Your task to perform on an android device: open app "Roku - Official Remote Control" (install if not already installed), go to login, and select forgot password Image 0: 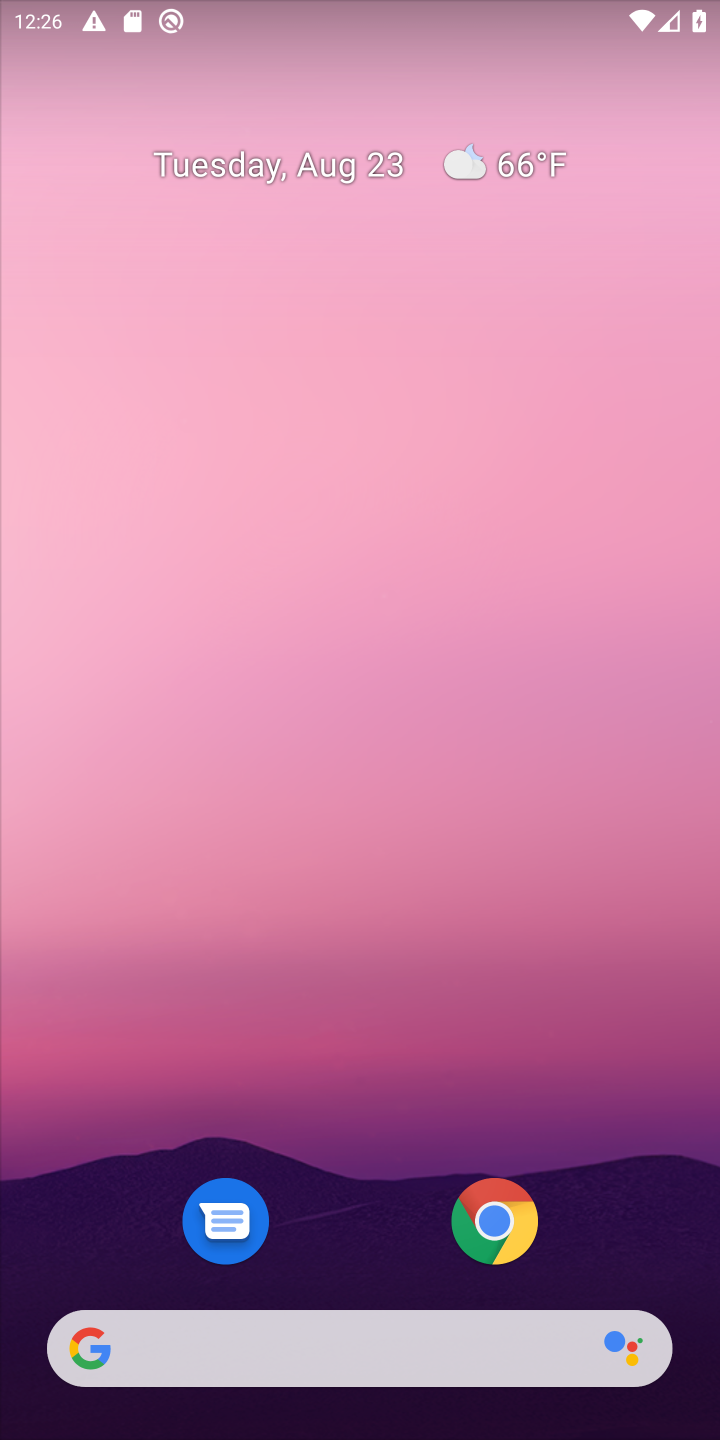
Step 0: drag from (384, 940) to (493, 214)
Your task to perform on an android device: open app "Roku - Official Remote Control" (install if not already installed), go to login, and select forgot password Image 1: 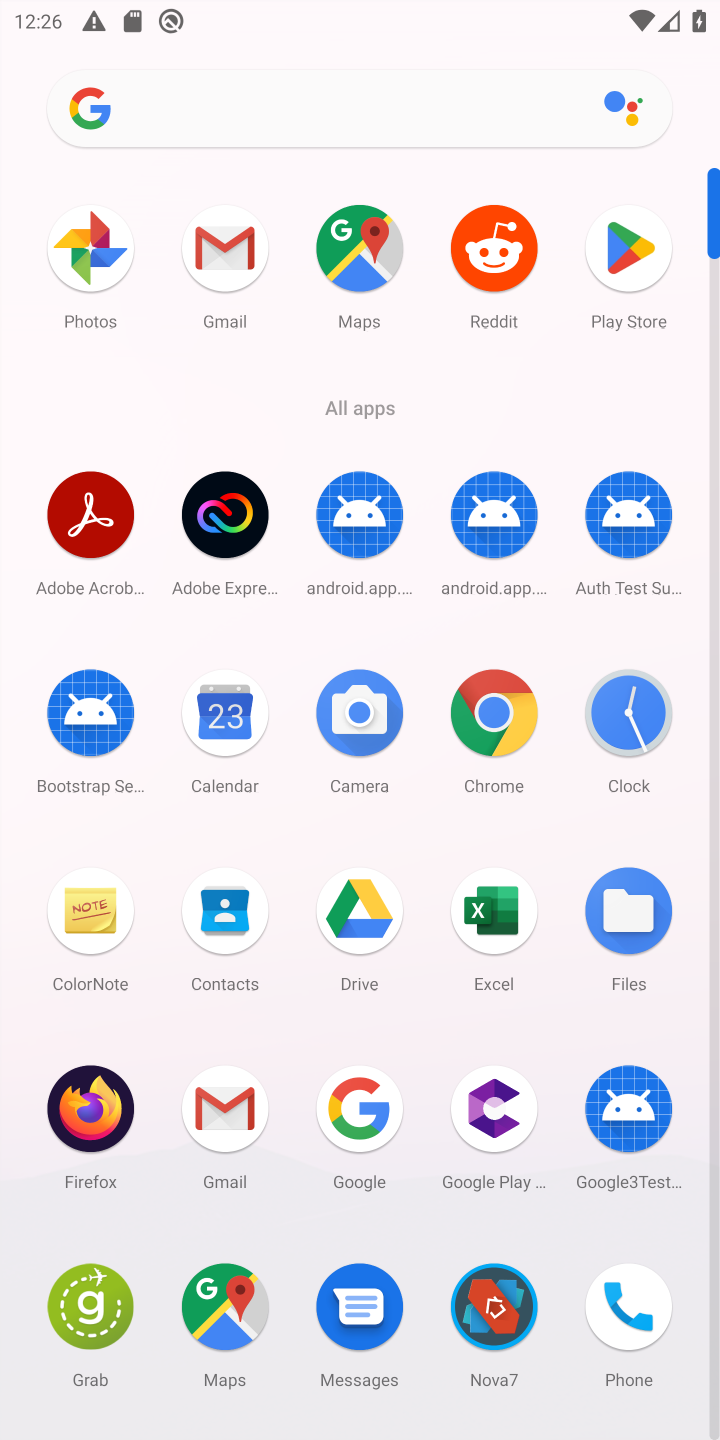
Step 1: click (618, 261)
Your task to perform on an android device: open app "Roku - Official Remote Control" (install if not already installed), go to login, and select forgot password Image 2: 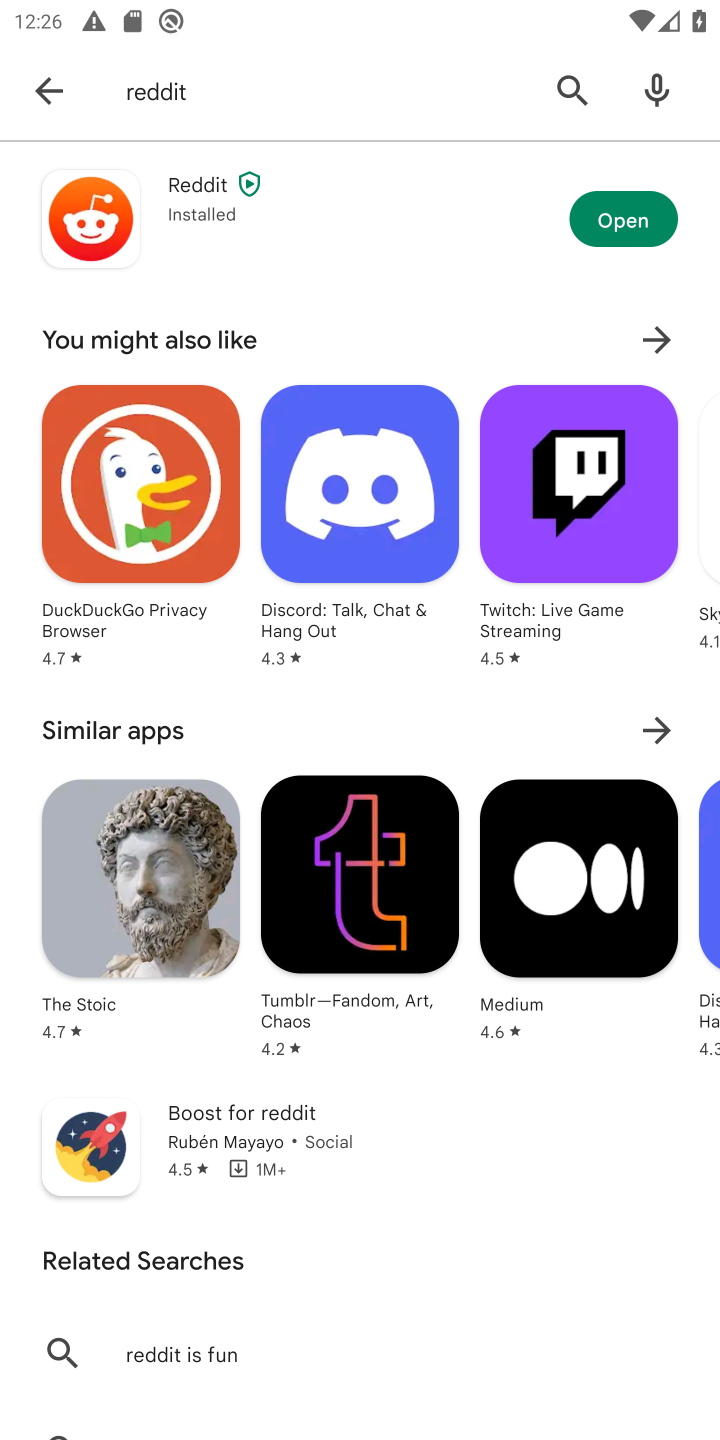
Step 2: click (568, 82)
Your task to perform on an android device: open app "Roku - Official Remote Control" (install if not already installed), go to login, and select forgot password Image 3: 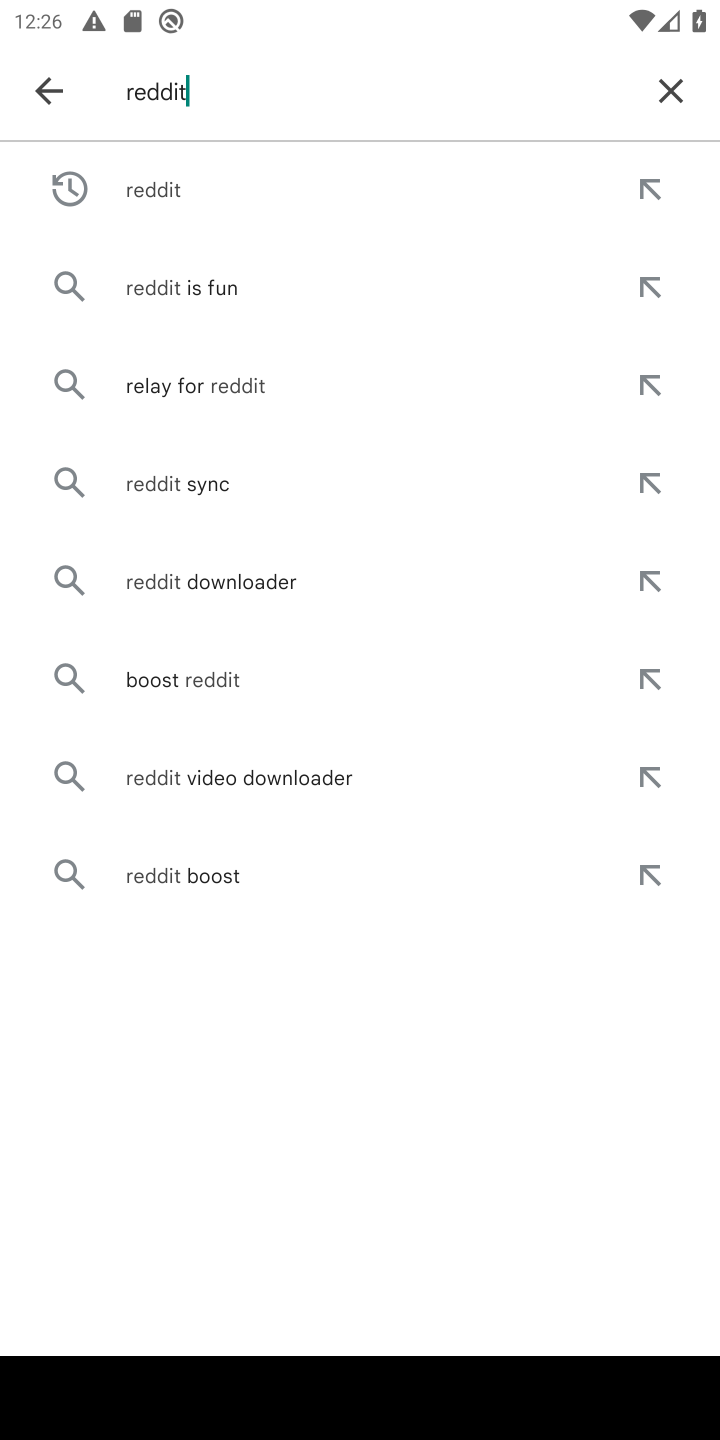
Step 3: click (677, 99)
Your task to perform on an android device: open app "Roku - Official Remote Control" (install if not already installed), go to login, and select forgot password Image 4: 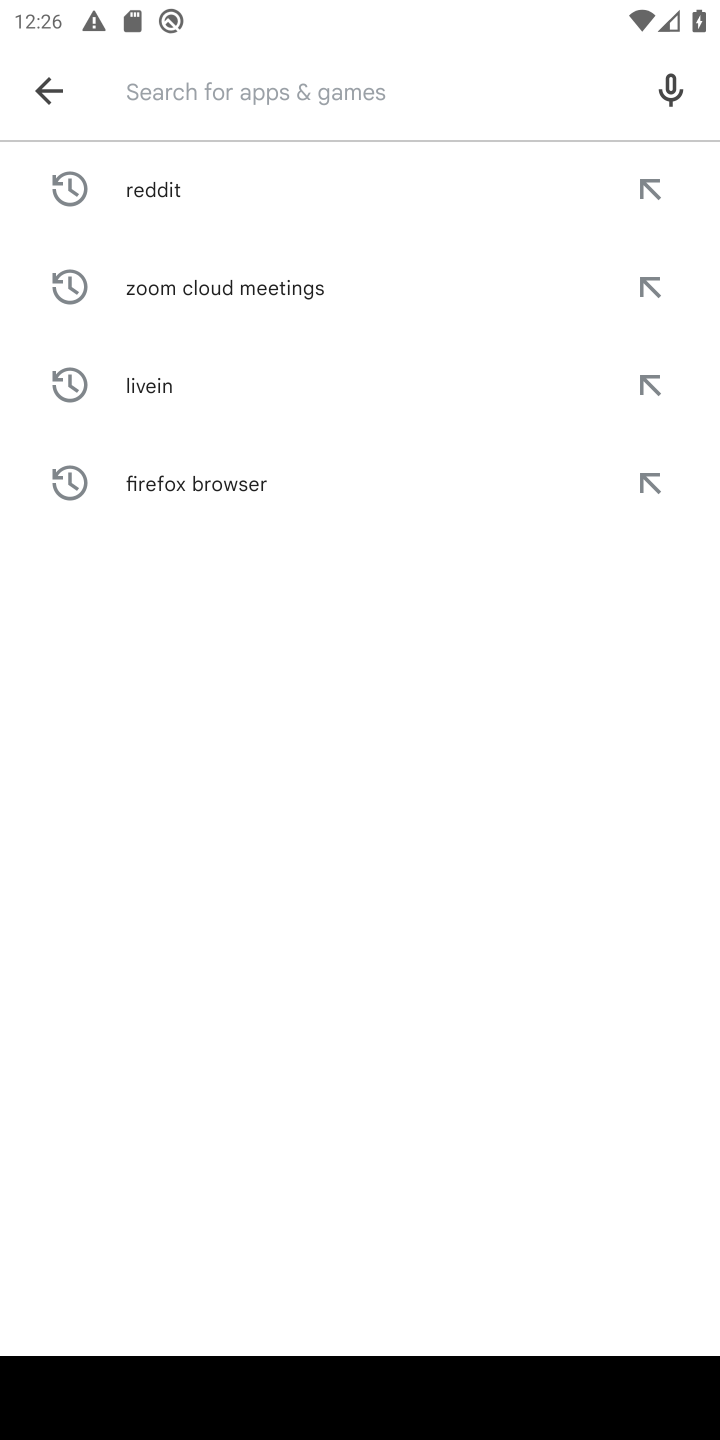
Step 4: click (220, 100)
Your task to perform on an android device: open app "Roku - Official Remote Control" (install if not already installed), go to login, and select forgot password Image 5: 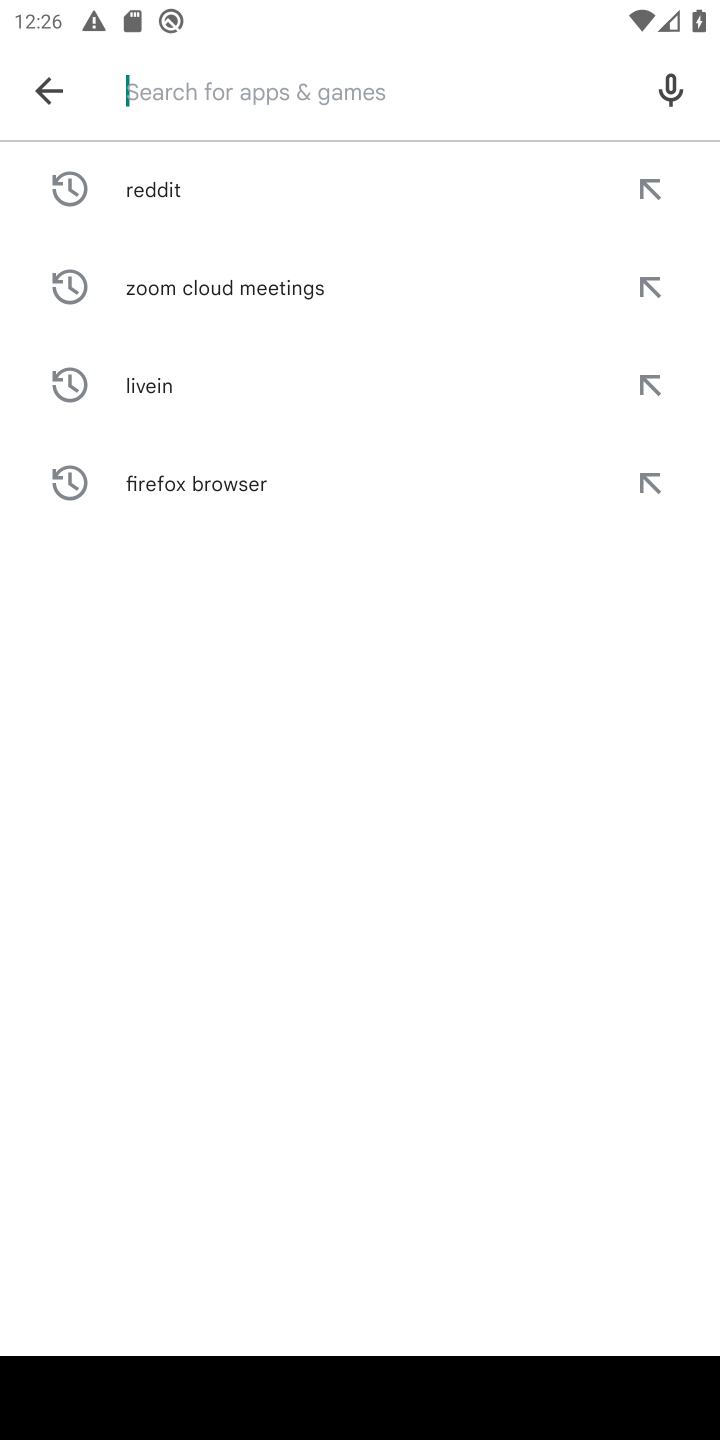
Step 5: type "Roku"
Your task to perform on an android device: open app "Roku - Official Remote Control" (install if not already installed), go to login, and select forgot password Image 6: 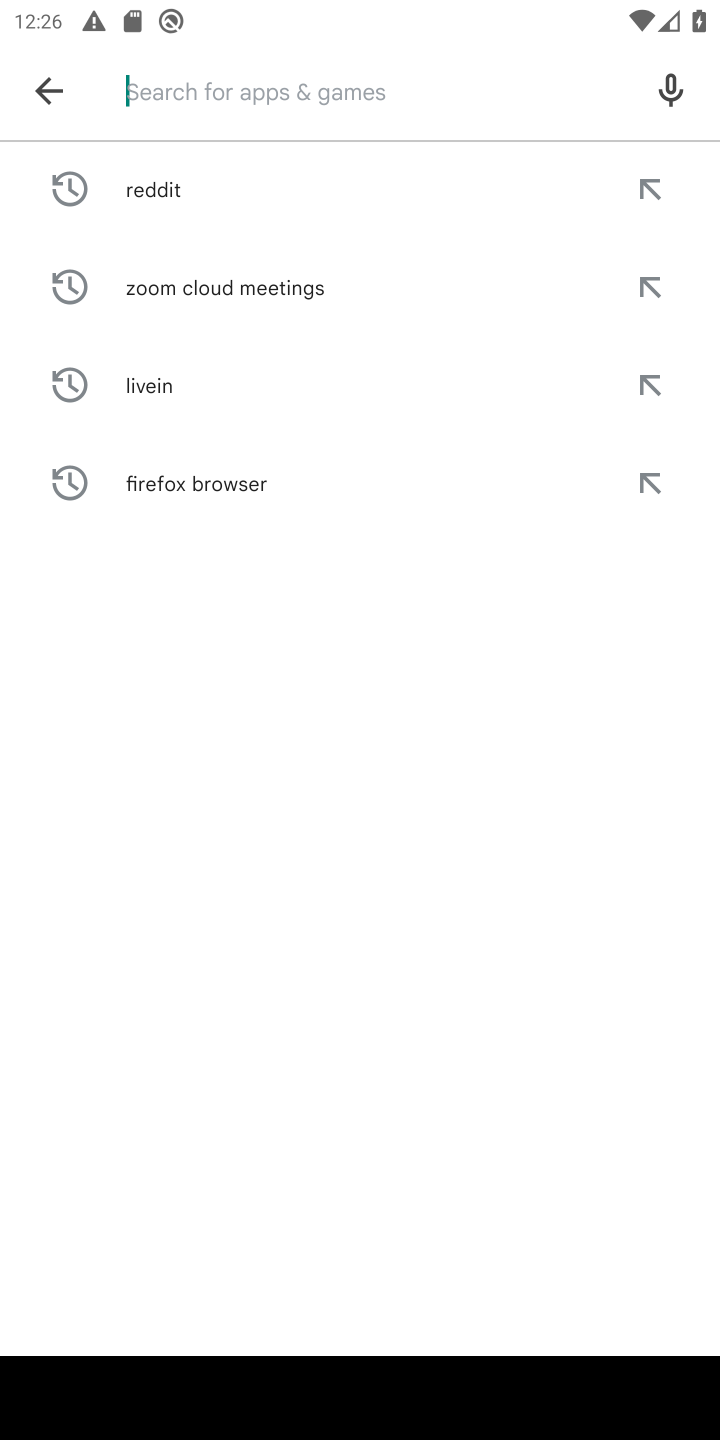
Step 6: click (478, 918)
Your task to perform on an android device: open app "Roku - Official Remote Control" (install if not already installed), go to login, and select forgot password Image 7: 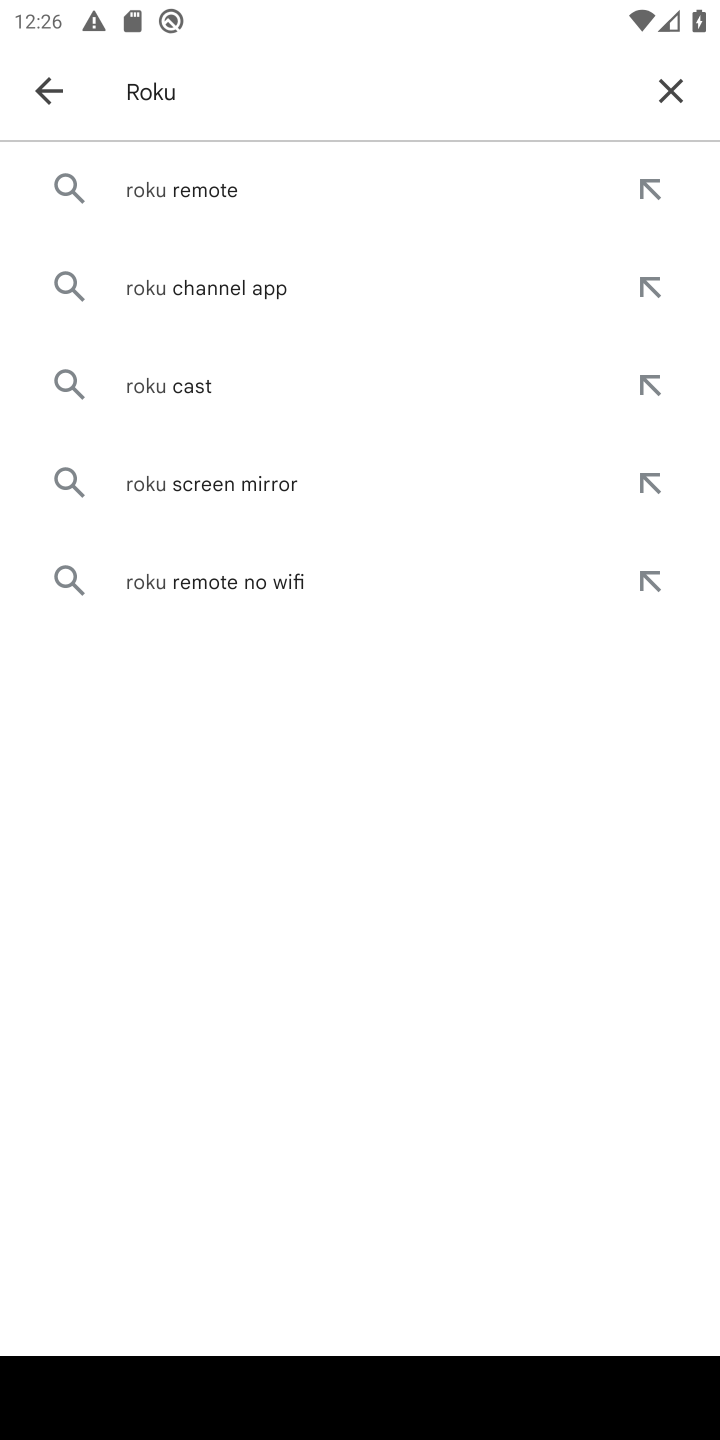
Step 7: click (224, 223)
Your task to perform on an android device: open app "Roku - Official Remote Control" (install if not already installed), go to login, and select forgot password Image 8: 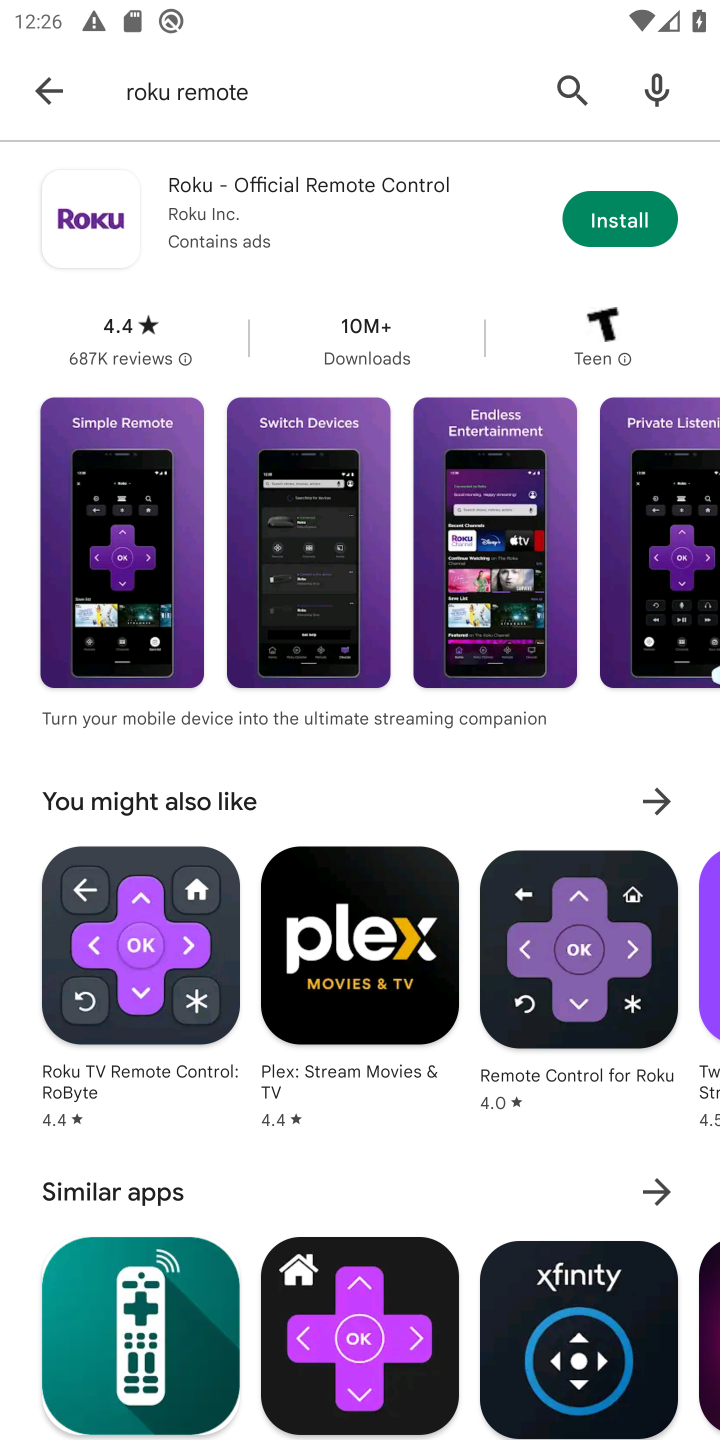
Step 8: click (627, 217)
Your task to perform on an android device: open app "Roku - Official Remote Control" (install if not already installed), go to login, and select forgot password Image 9: 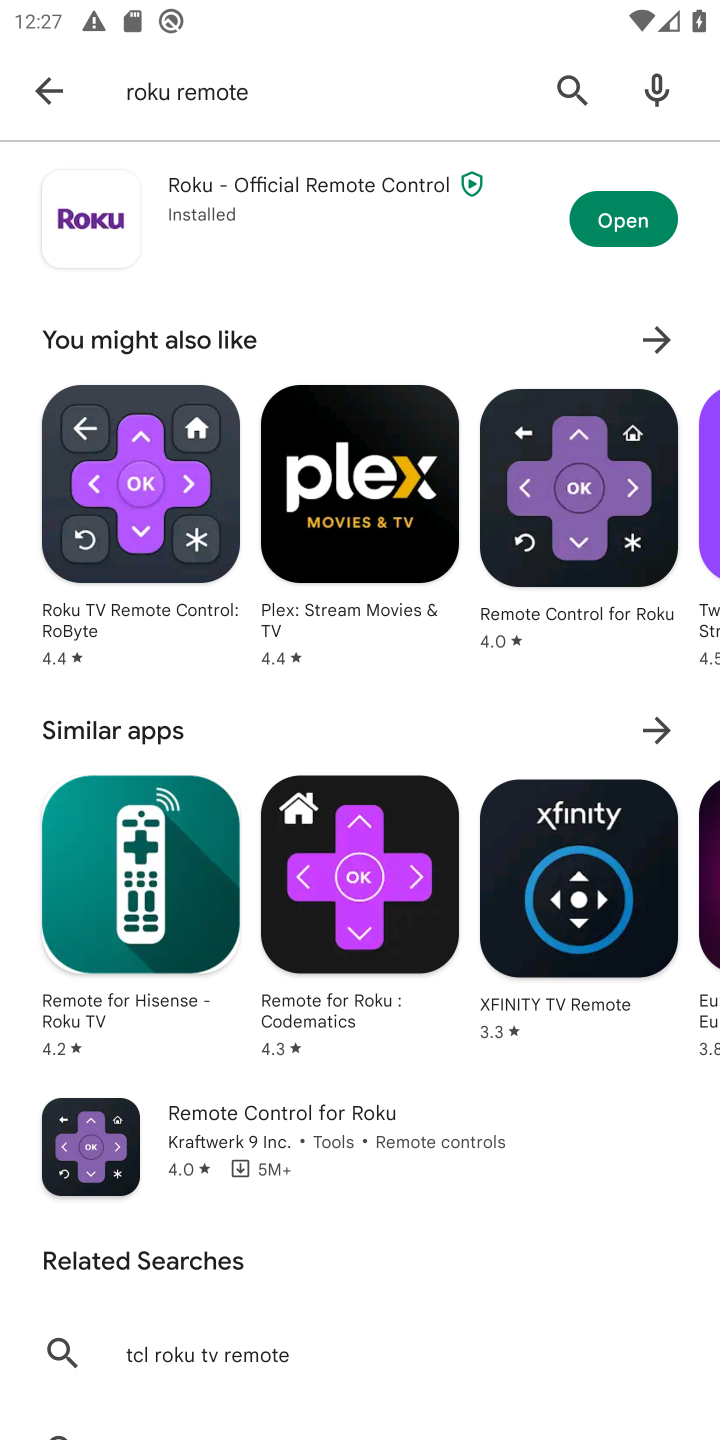
Step 9: click (648, 218)
Your task to perform on an android device: open app "Roku - Official Remote Control" (install if not already installed), go to login, and select forgot password Image 10: 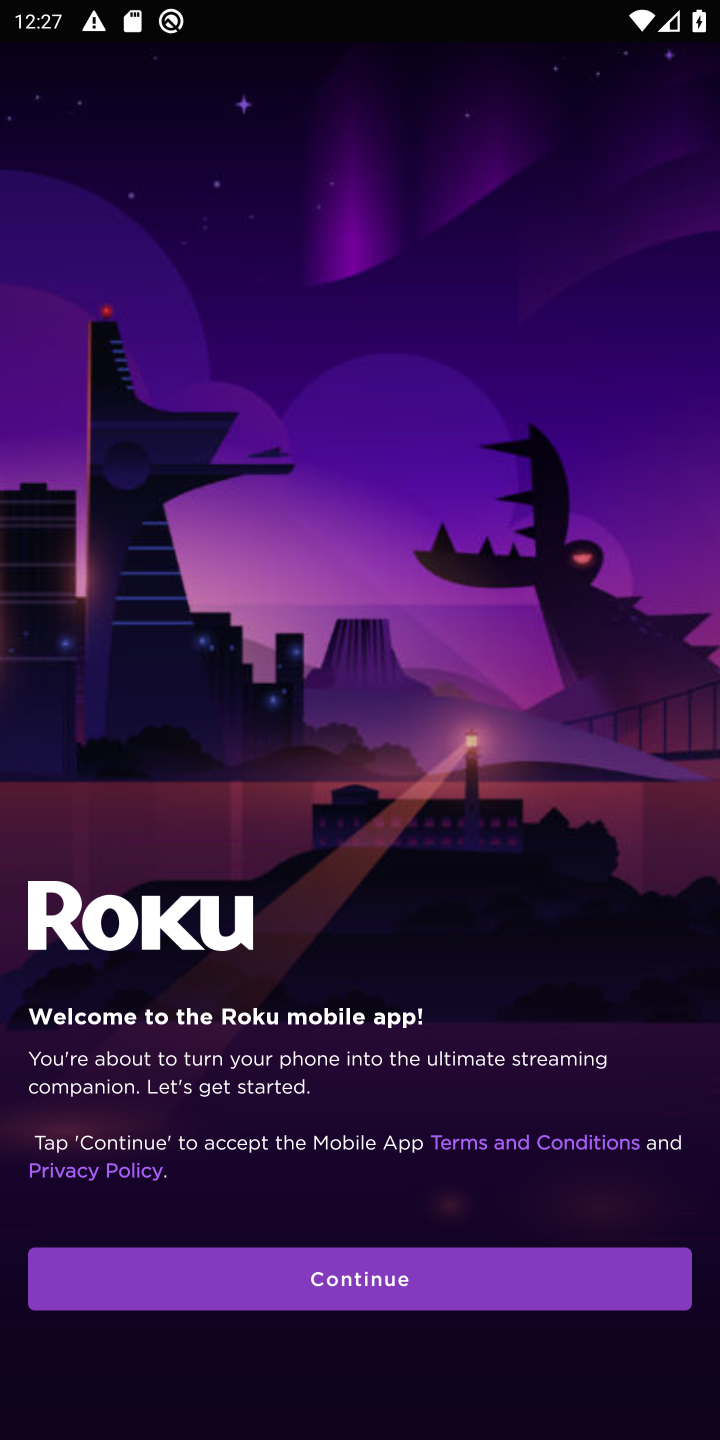
Step 10: click (374, 1286)
Your task to perform on an android device: open app "Roku - Official Remote Control" (install if not already installed), go to login, and select forgot password Image 11: 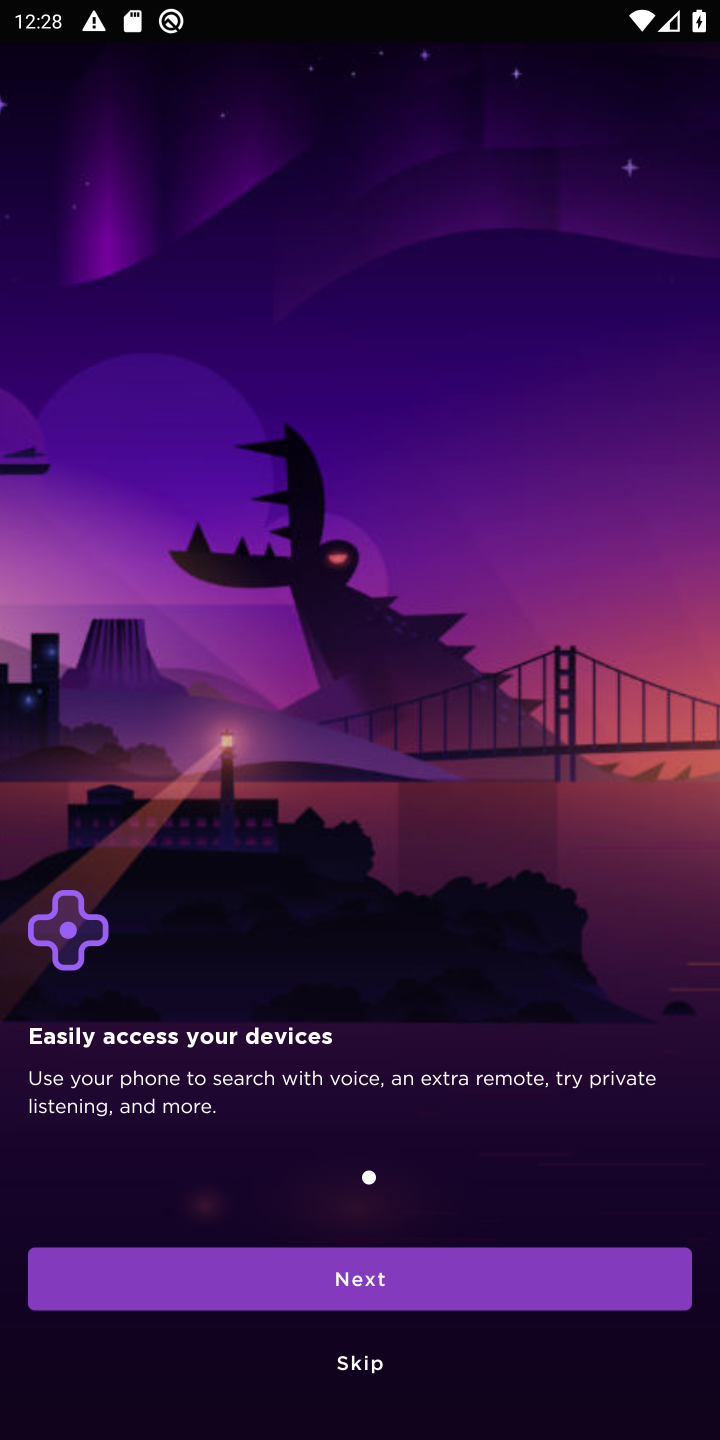
Step 11: click (374, 1286)
Your task to perform on an android device: open app "Roku - Official Remote Control" (install if not already installed), go to login, and select forgot password Image 12: 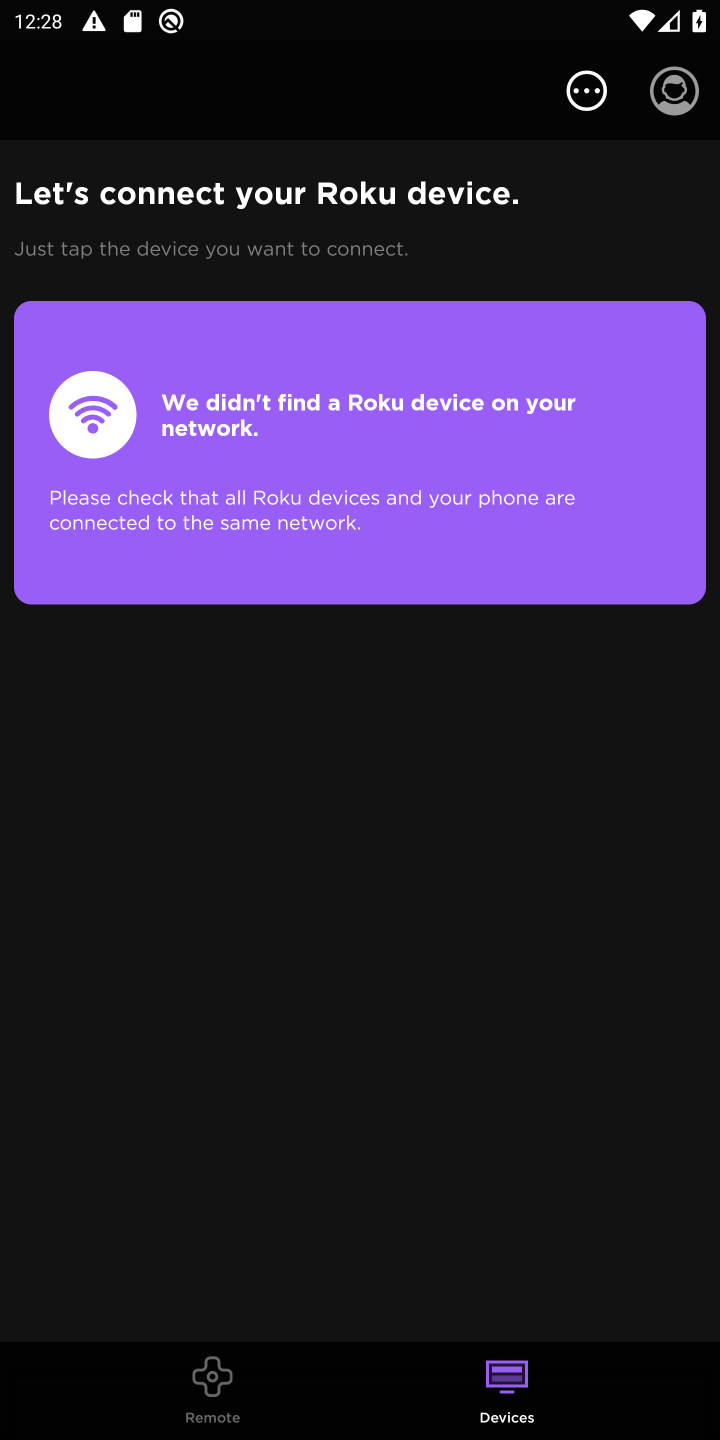
Step 12: click (672, 97)
Your task to perform on an android device: open app "Roku - Official Remote Control" (install if not already installed), go to login, and select forgot password Image 13: 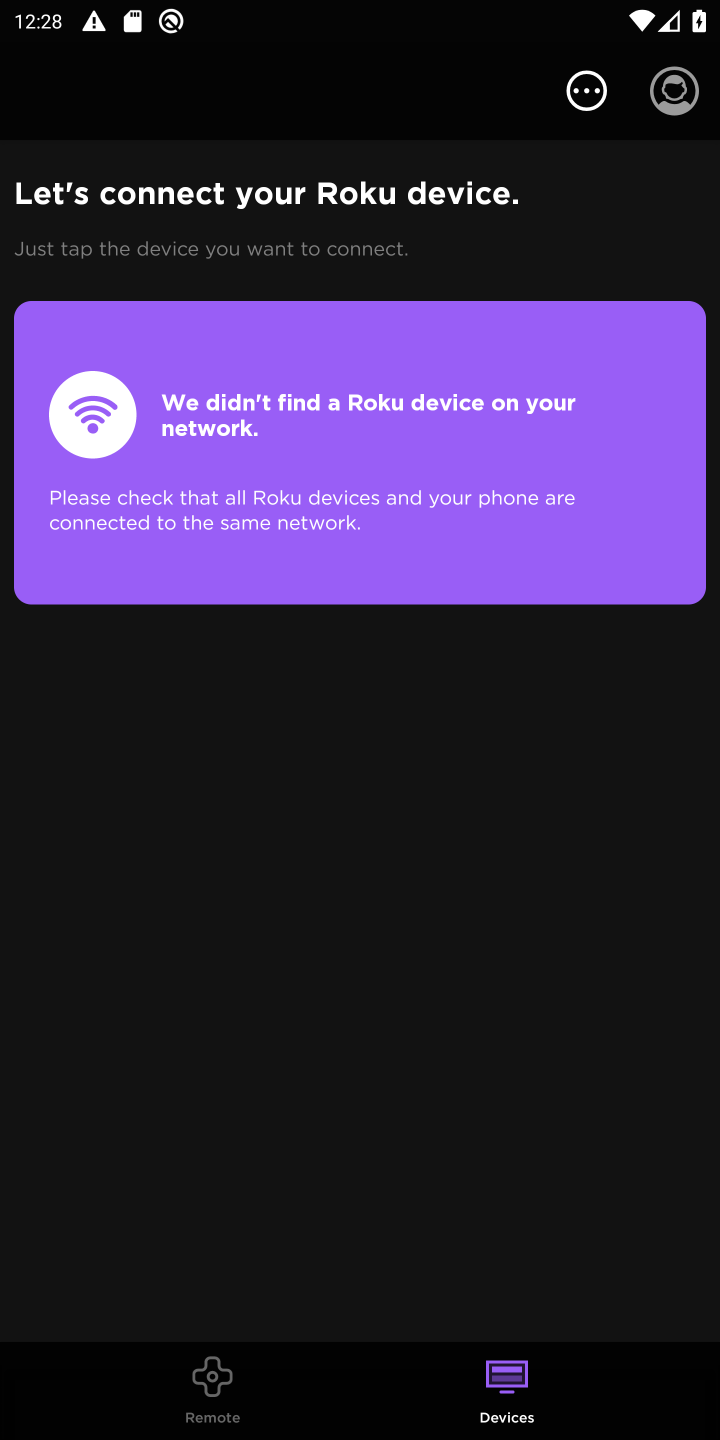
Step 13: click (676, 93)
Your task to perform on an android device: open app "Roku - Official Remote Control" (install if not already installed), go to login, and select forgot password Image 14: 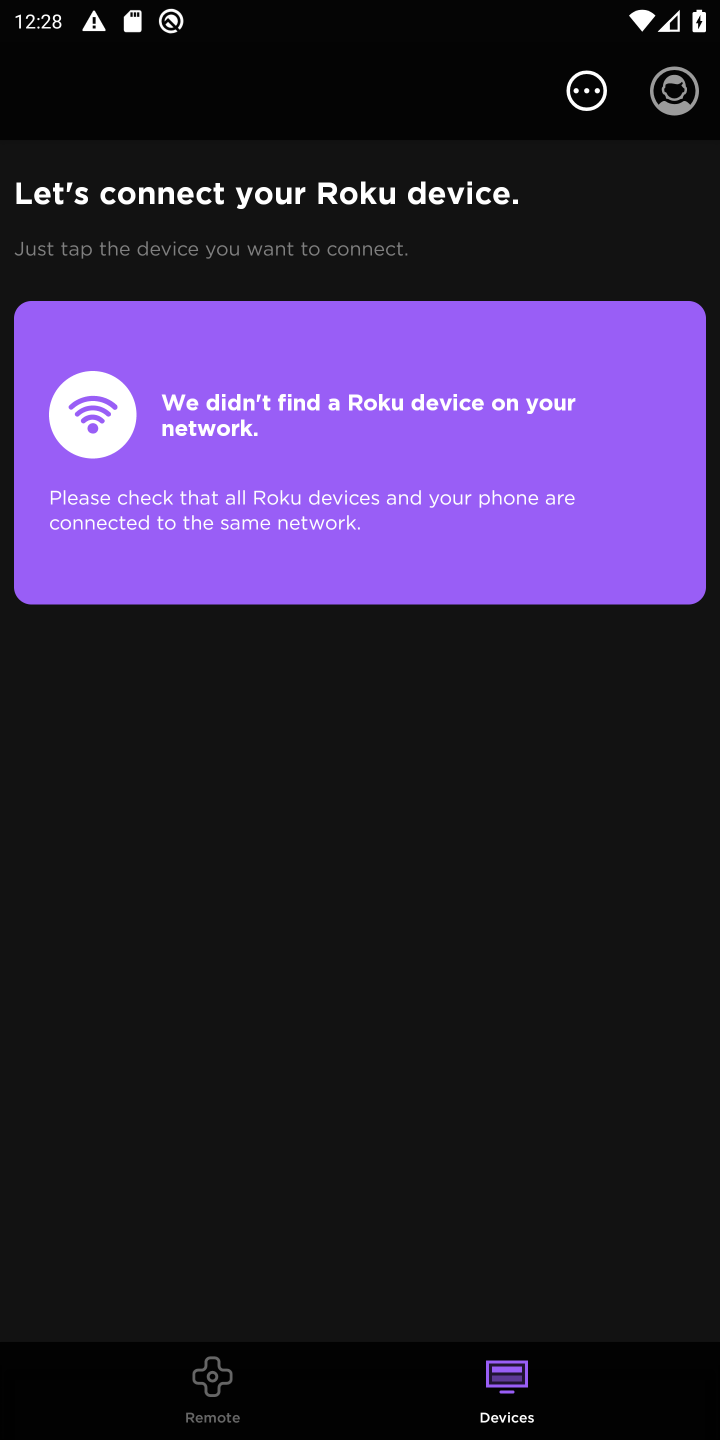
Step 14: click (676, 95)
Your task to perform on an android device: open app "Roku - Official Remote Control" (install if not already installed), go to login, and select forgot password Image 15: 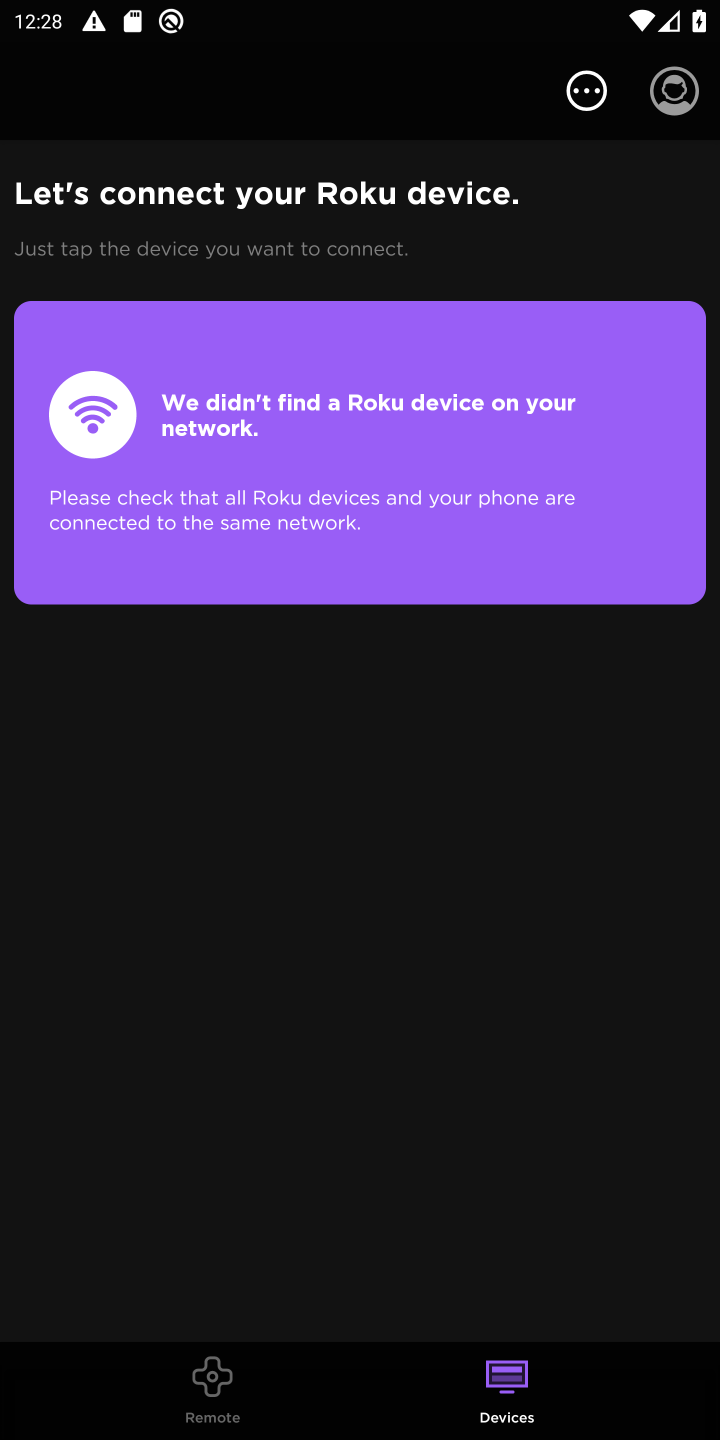
Step 15: click (665, 82)
Your task to perform on an android device: open app "Roku - Official Remote Control" (install if not already installed), go to login, and select forgot password Image 16: 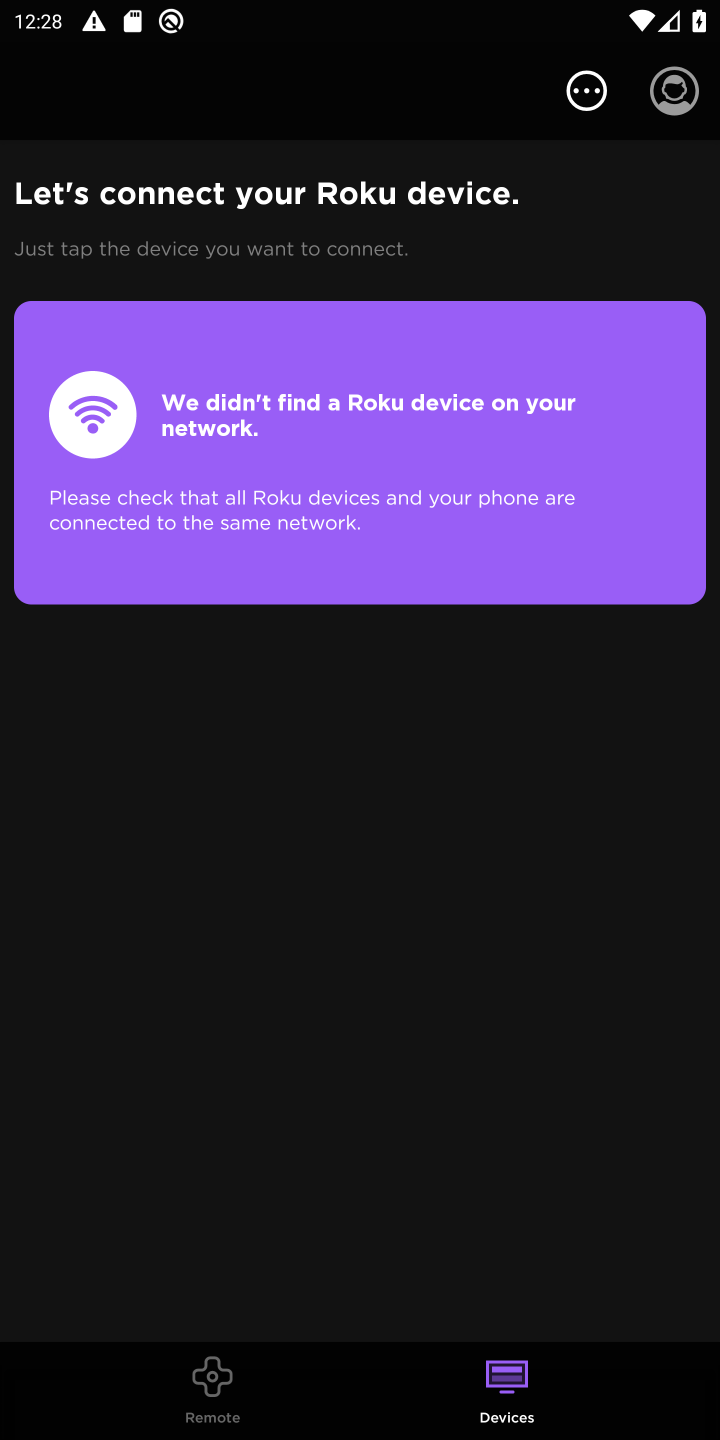
Step 16: click (686, 95)
Your task to perform on an android device: open app "Roku - Official Remote Control" (install if not already installed), go to login, and select forgot password Image 17: 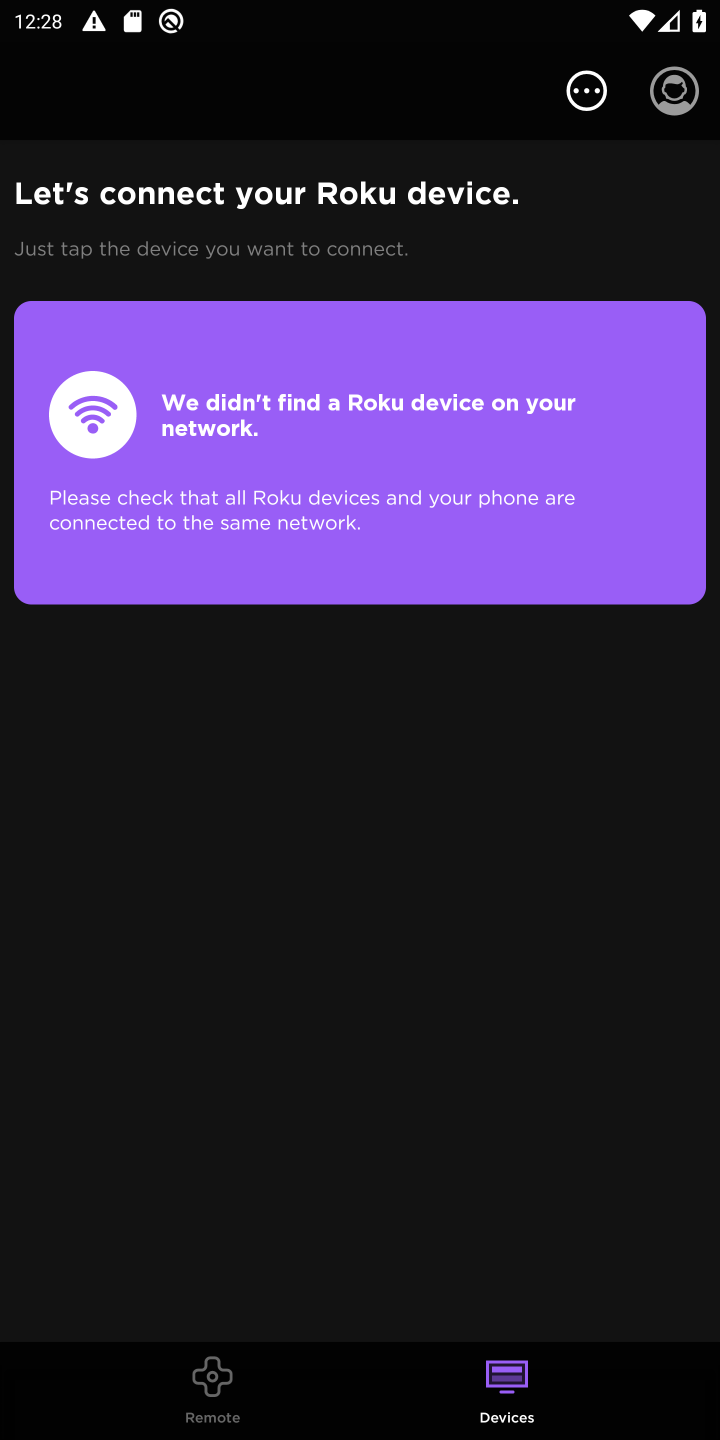
Step 17: task complete